Your task to perform on an android device: Open wifi settings Image 0: 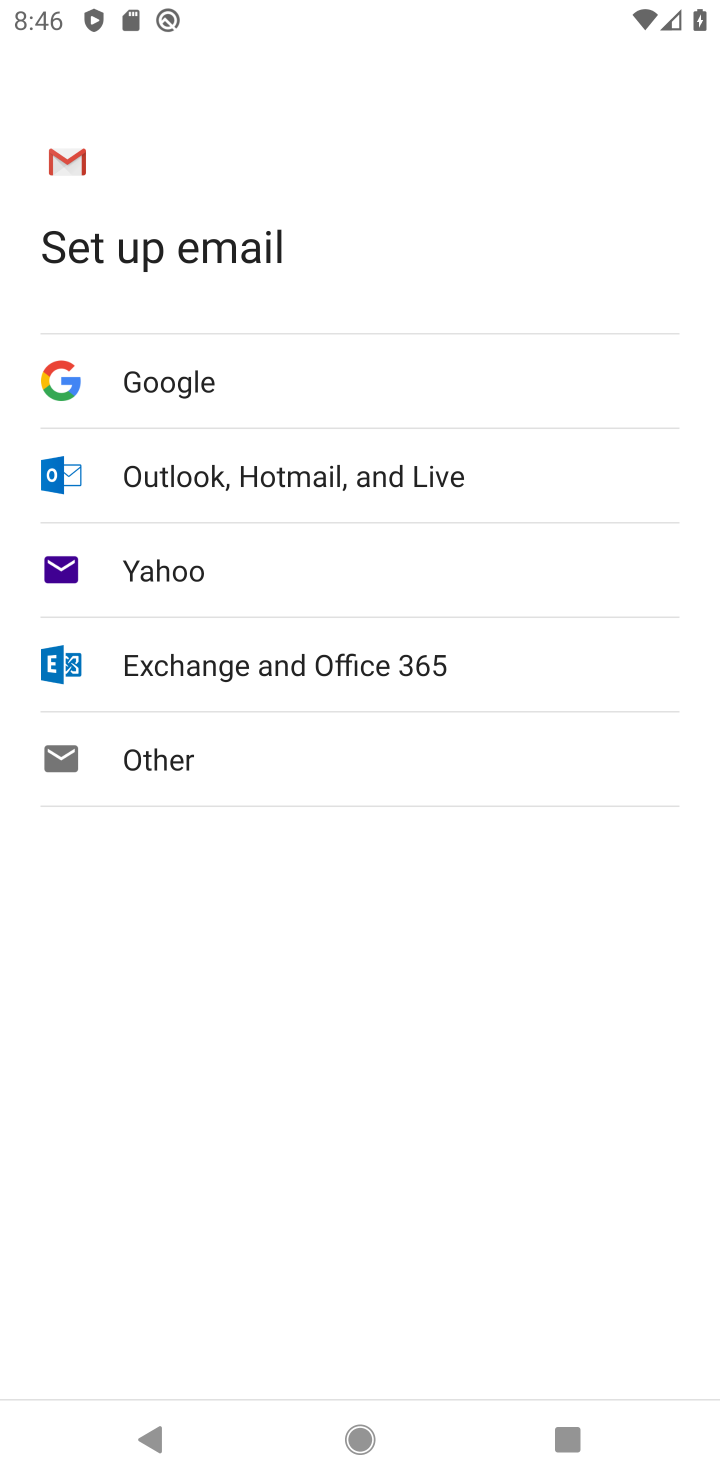
Step 0: drag from (407, 1341) to (363, 351)
Your task to perform on an android device: Open wifi settings Image 1: 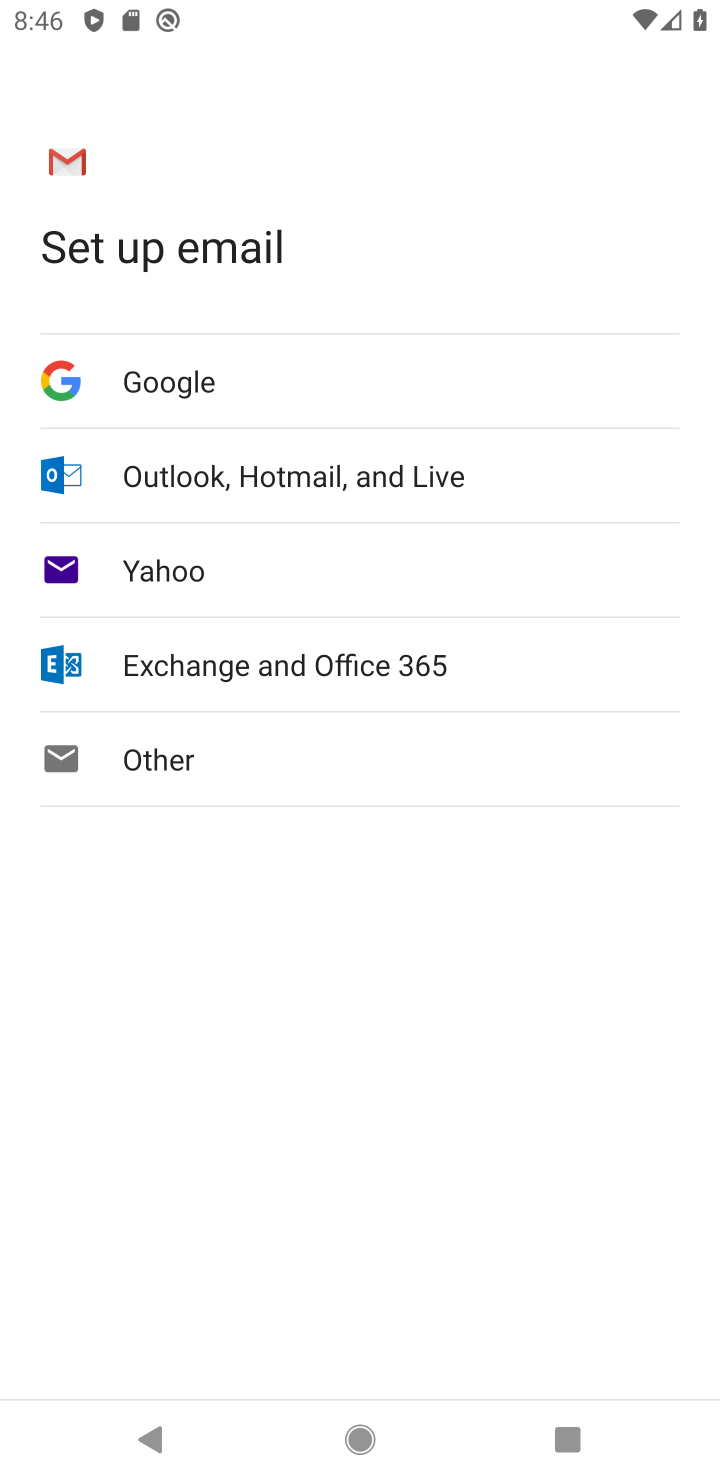
Step 1: press home button
Your task to perform on an android device: Open wifi settings Image 2: 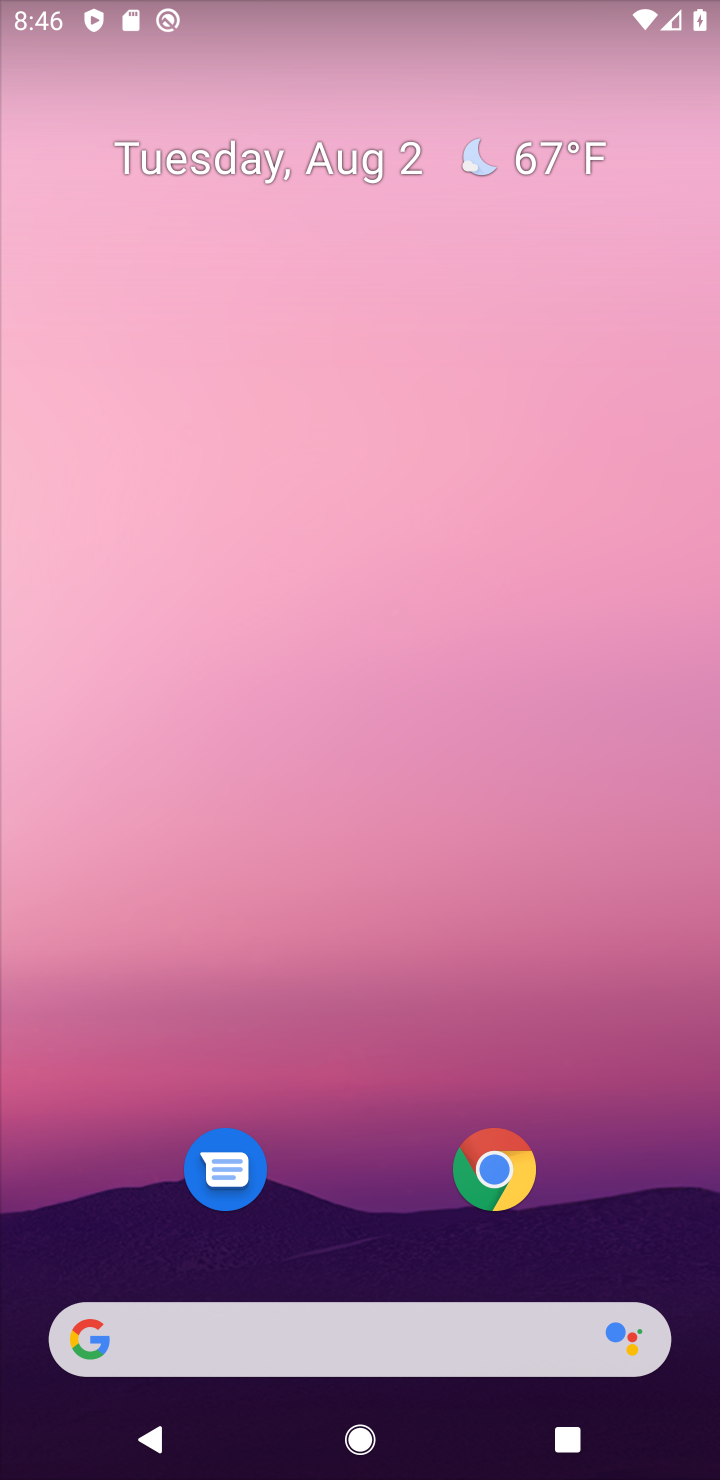
Step 2: drag from (410, 950) to (410, 102)
Your task to perform on an android device: Open wifi settings Image 3: 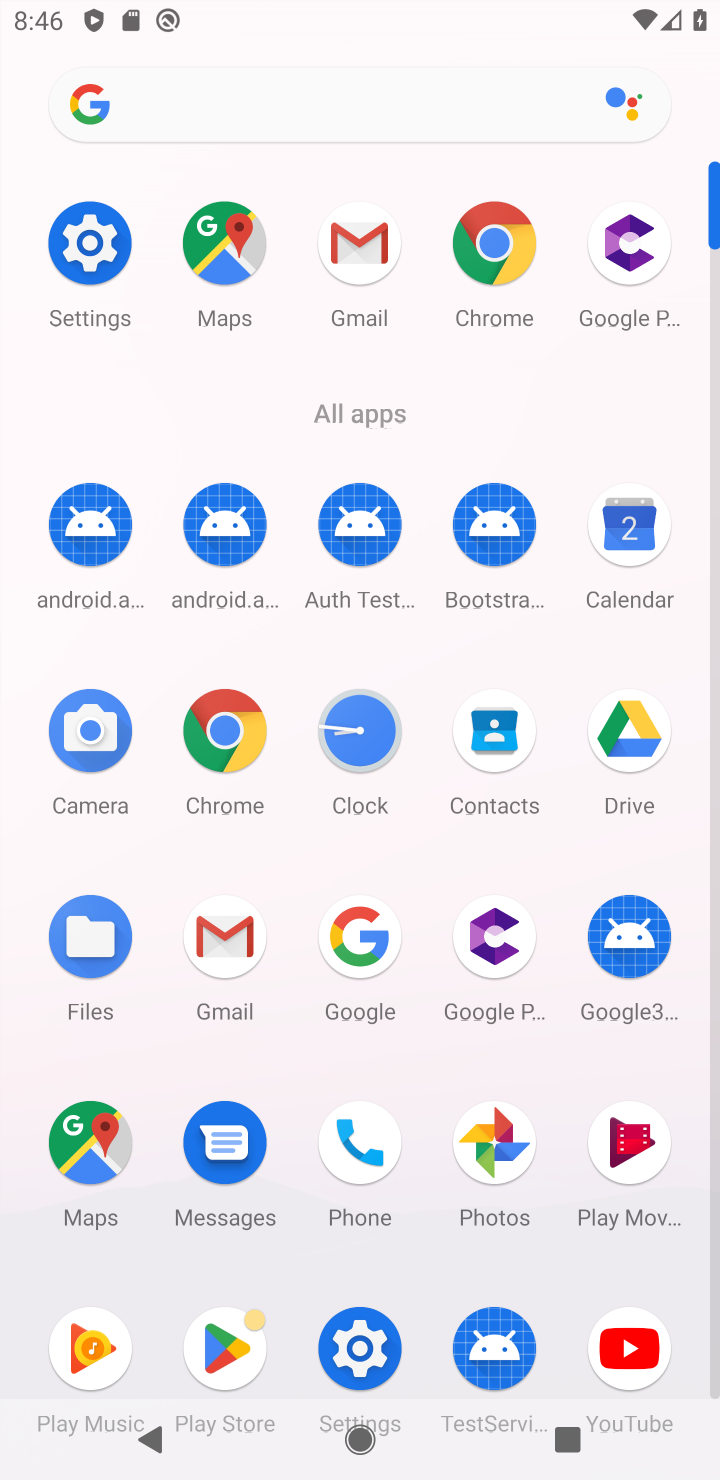
Step 3: click (88, 230)
Your task to perform on an android device: Open wifi settings Image 4: 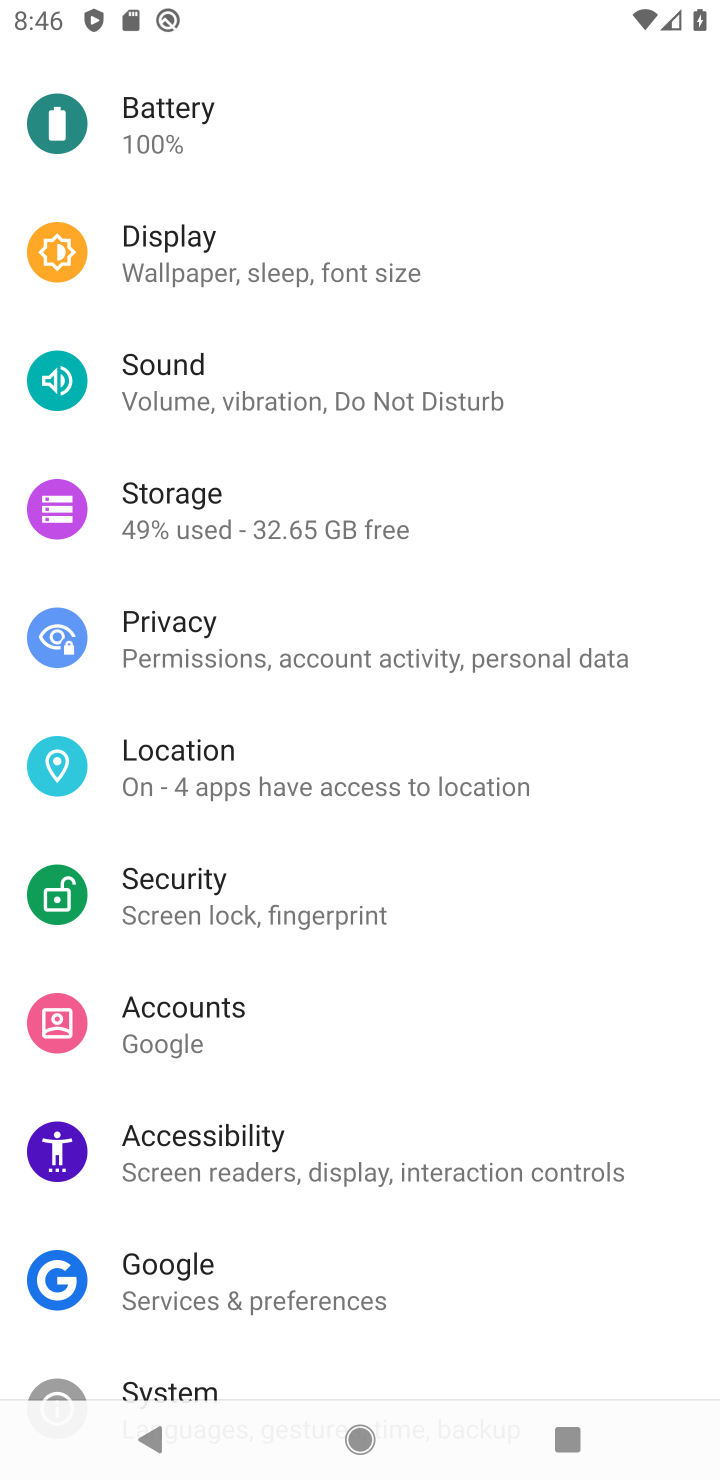
Step 4: drag from (304, 263) to (308, 946)
Your task to perform on an android device: Open wifi settings Image 5: 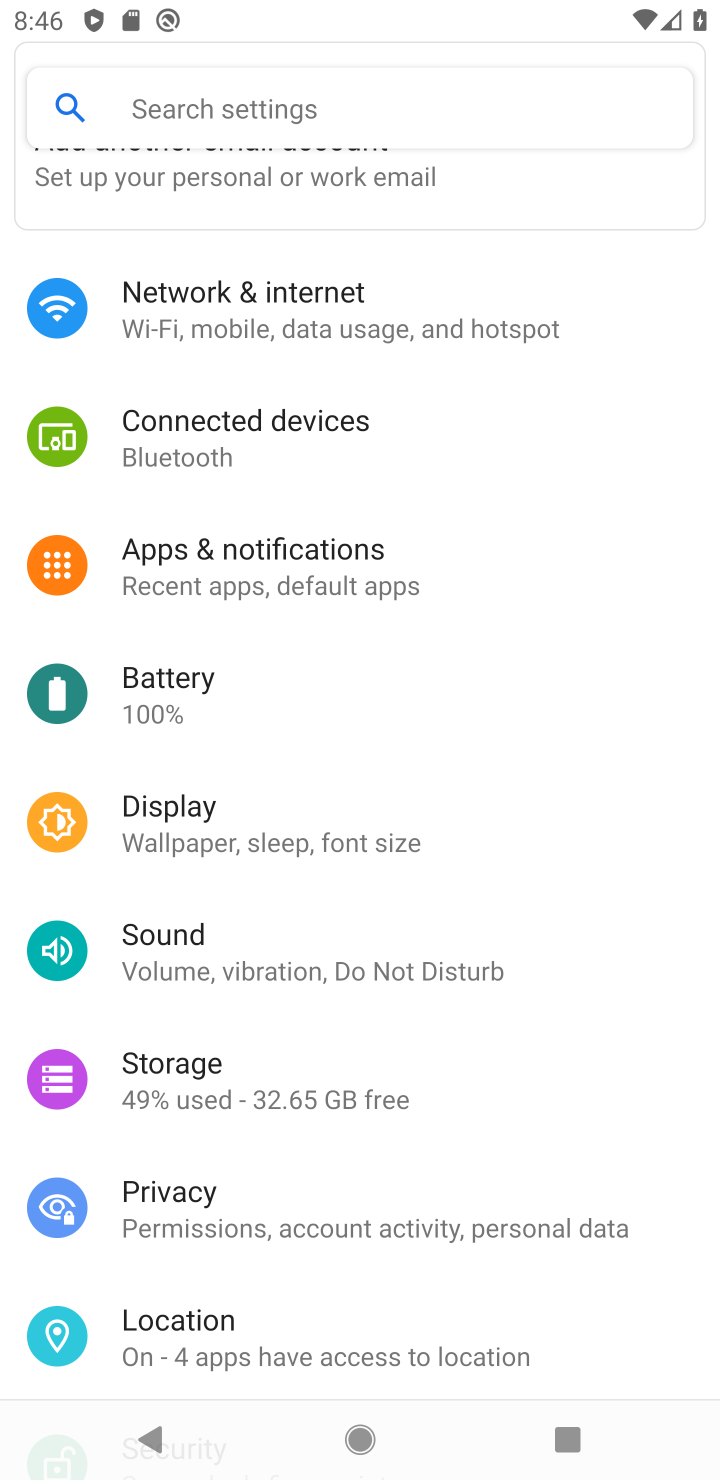
Step 5: drag from (214, 280) to (235, 954)
Your task to perform on an android device: Open wifi settings Image 6: 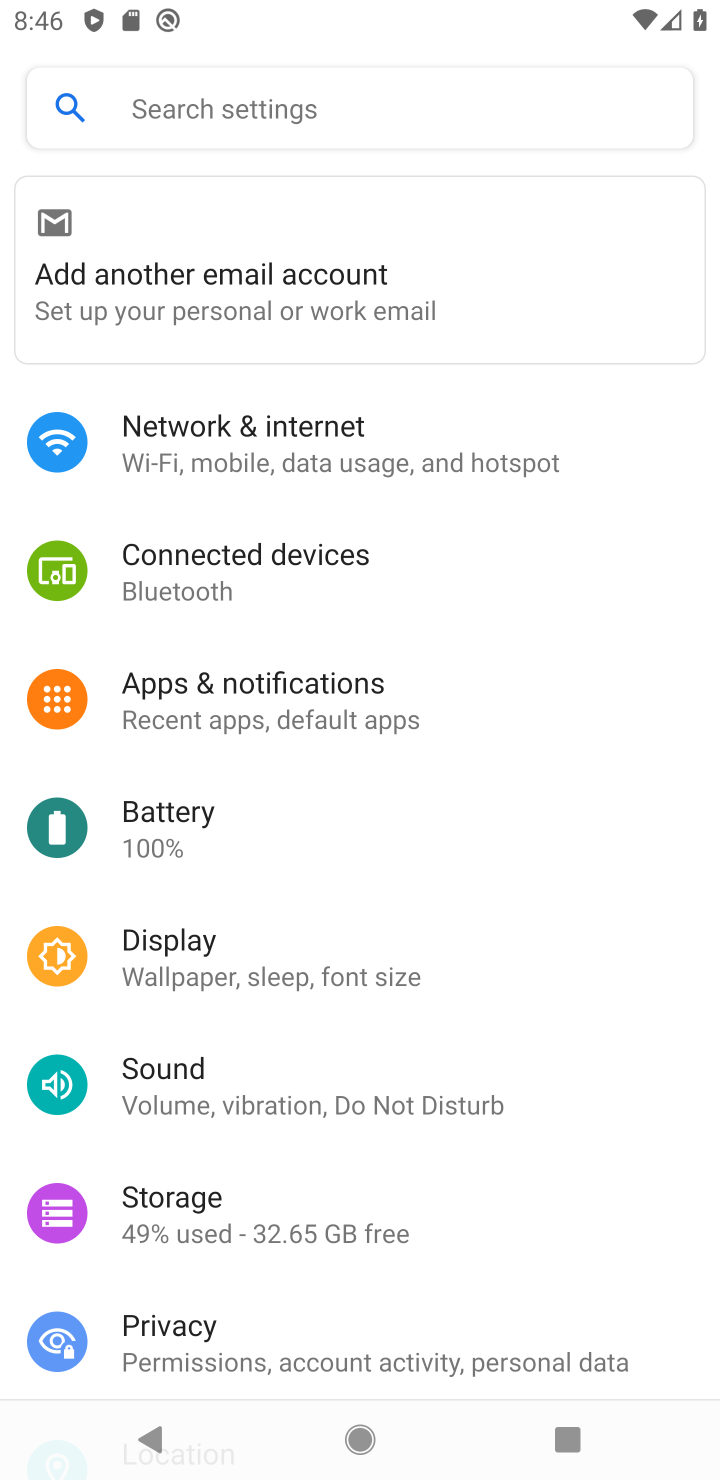
Step 6: click (281, 434)
Your task to perform on an android device: Open wifi settings Image 7: 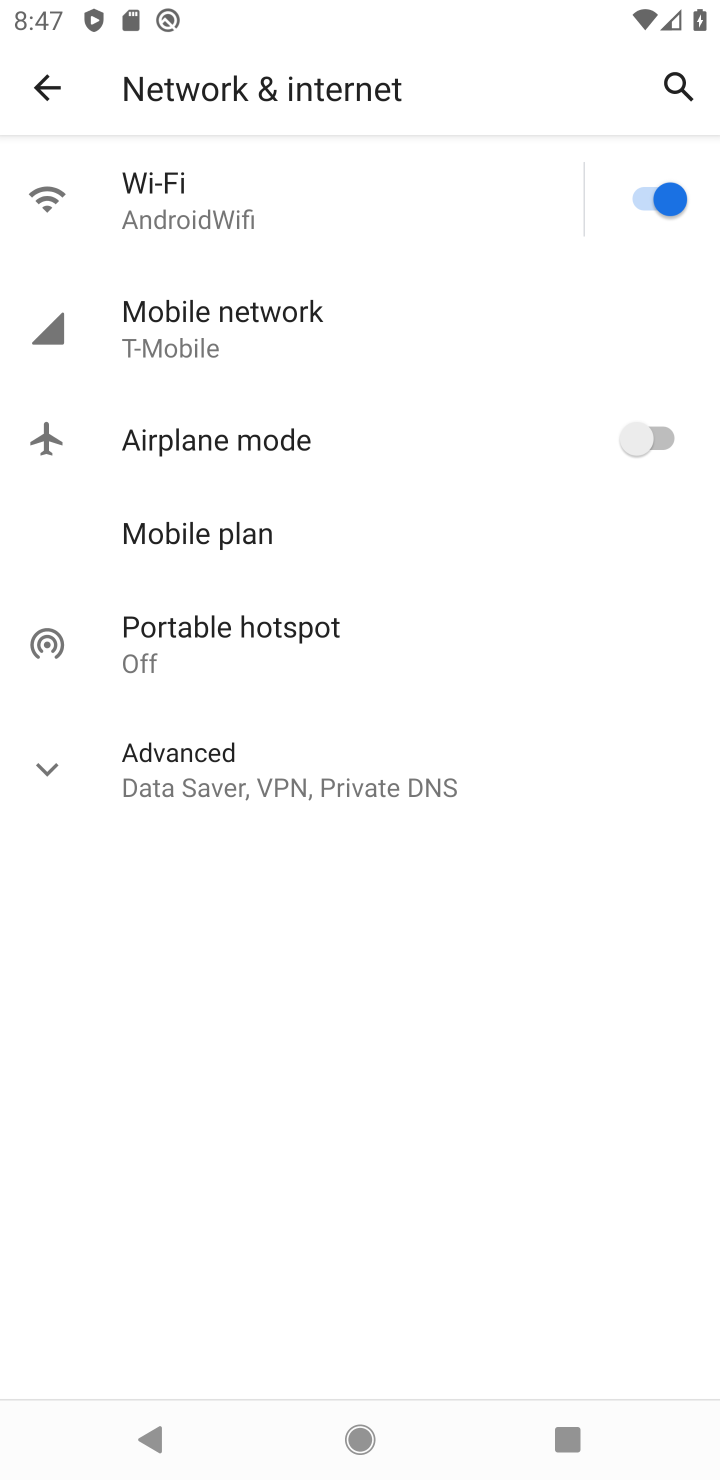
Step 7: click (206, 206)
Your task to perform on an android device: Open wifi settings Image 8: 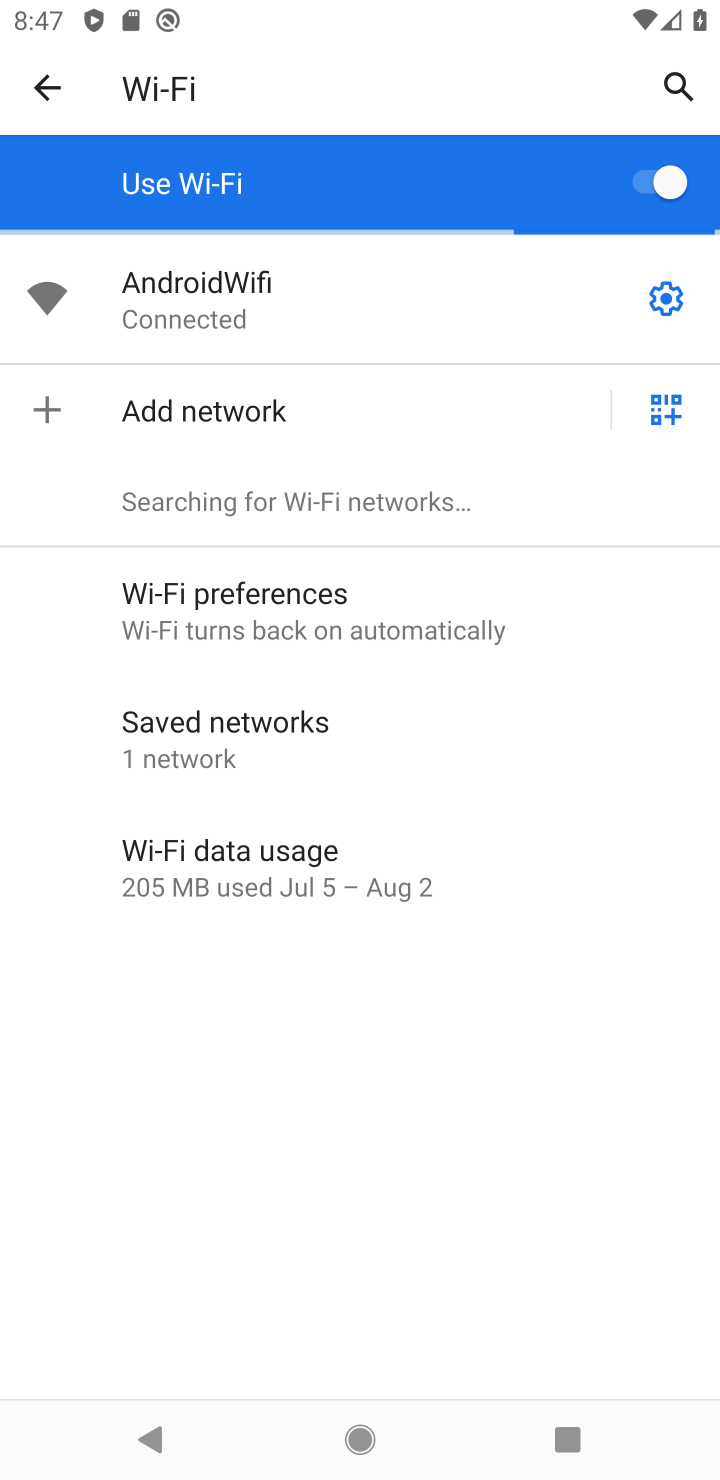
Step 8: task complete